Your task to perform on an android device: install app "Google Duo" Image 0: 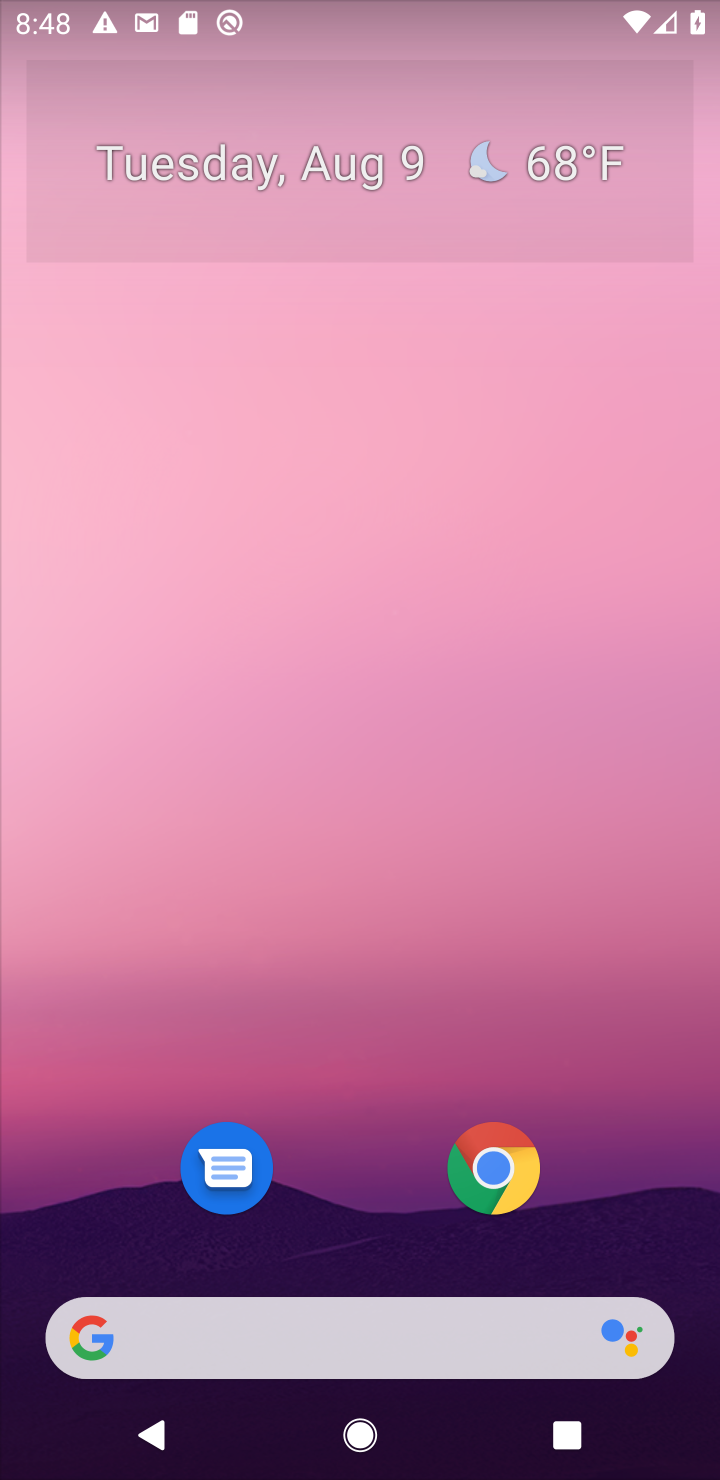
Step 0: drag from (479, 1336) to (169, 61)
Your task to perform on an android device: install app "Google Duo" Image 1: 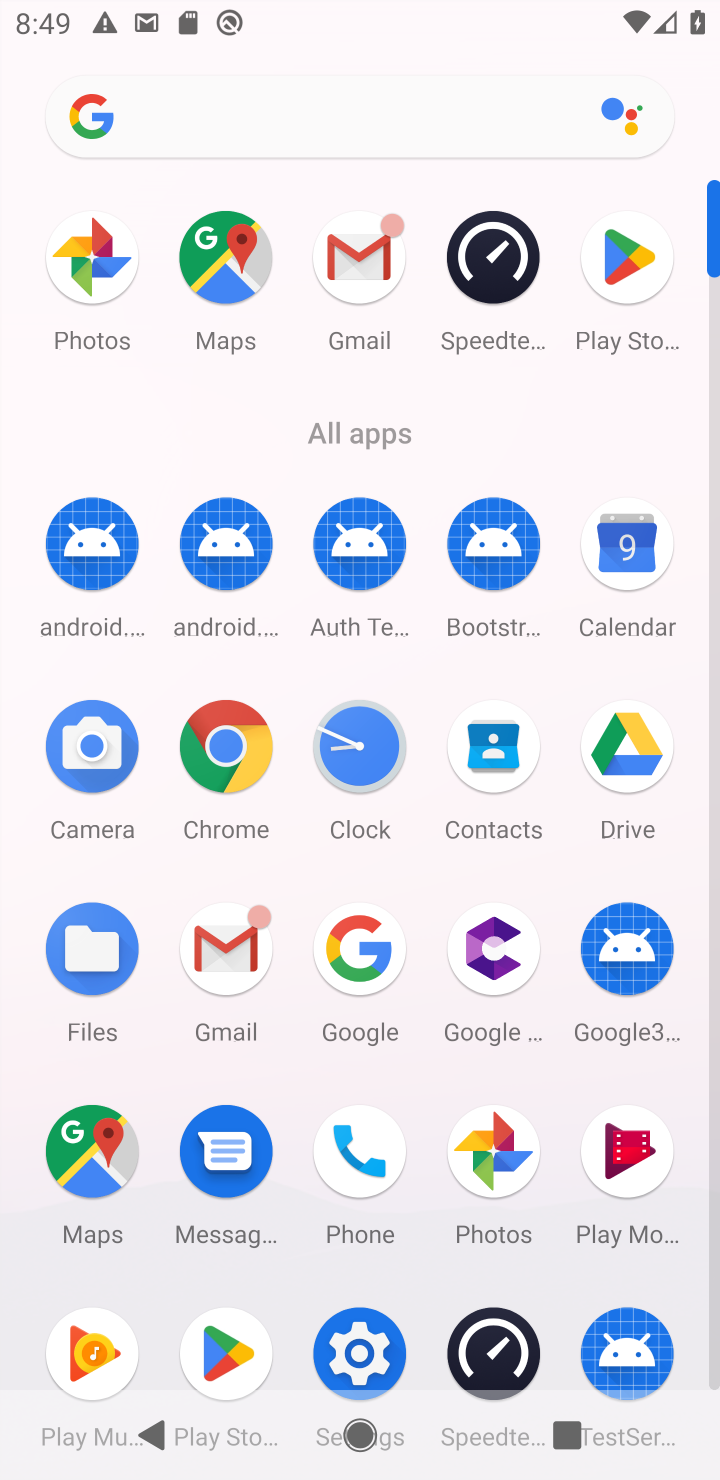
Step 1: click (641, 258)
Your task to perform on an android device: install app "Google Duo" Image 2: 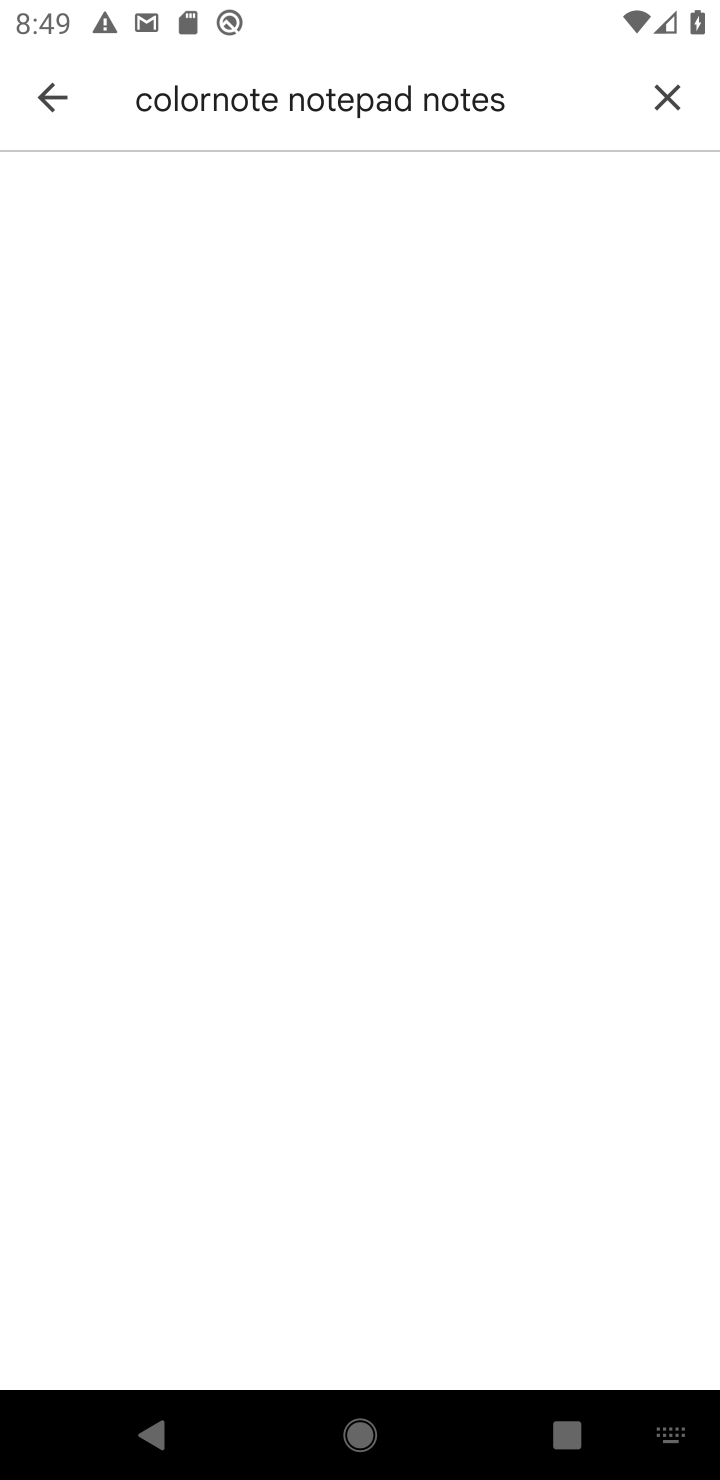
Step 2: click (663, 91)
Your task to perform on an android device: install app "Google Duo" Image 3: 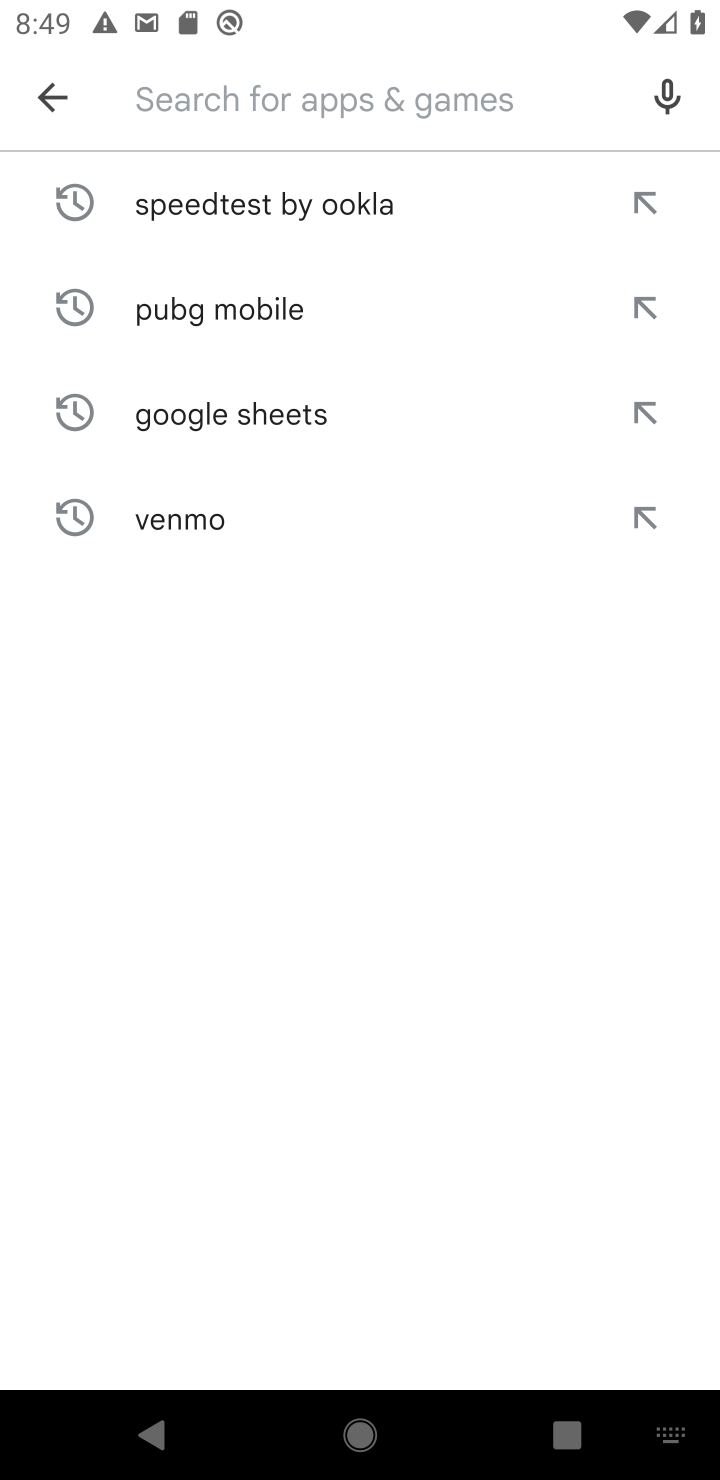
Step 3: type "google duo"
Your task to perform on an android device: install app "Google Duo" Image 4: 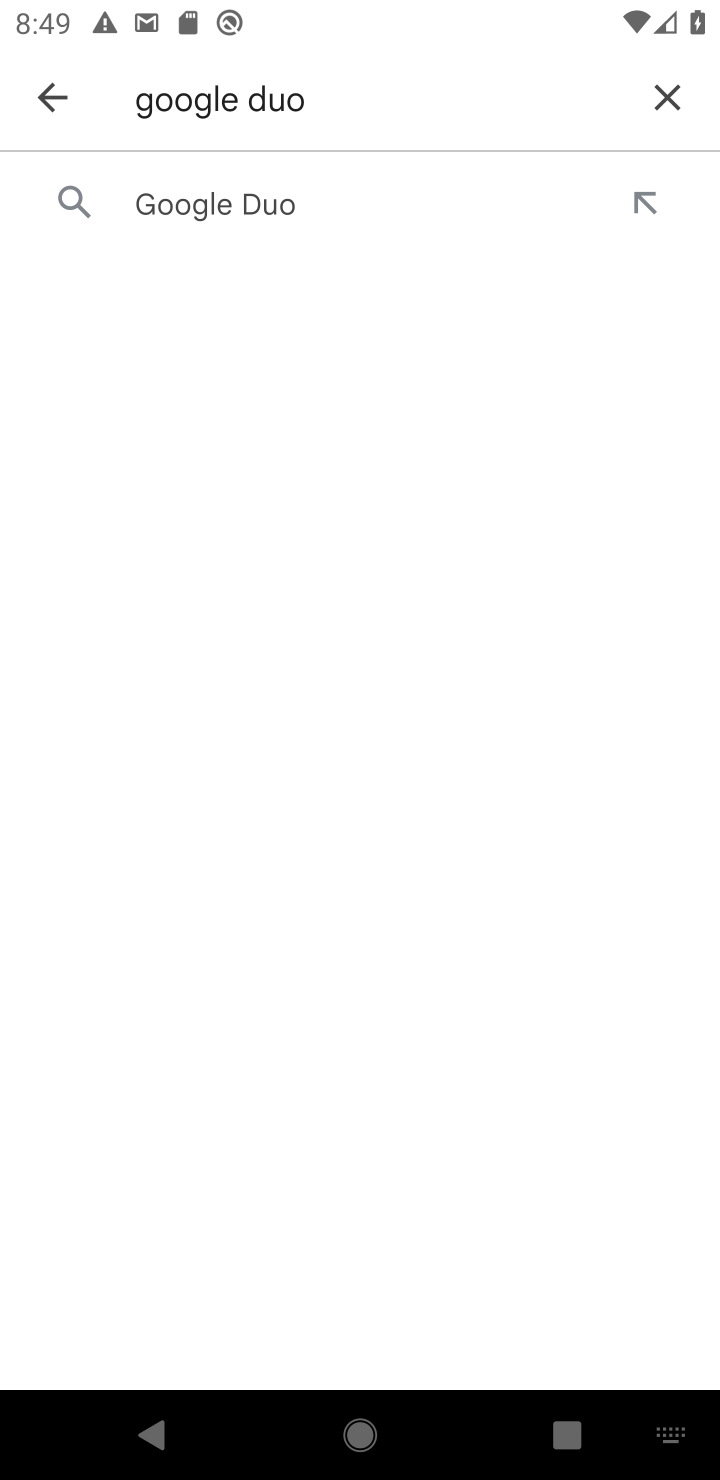
Step 4: click (343, 187)
Your task to perform on an android device: install app "Google Duo" Image 5: 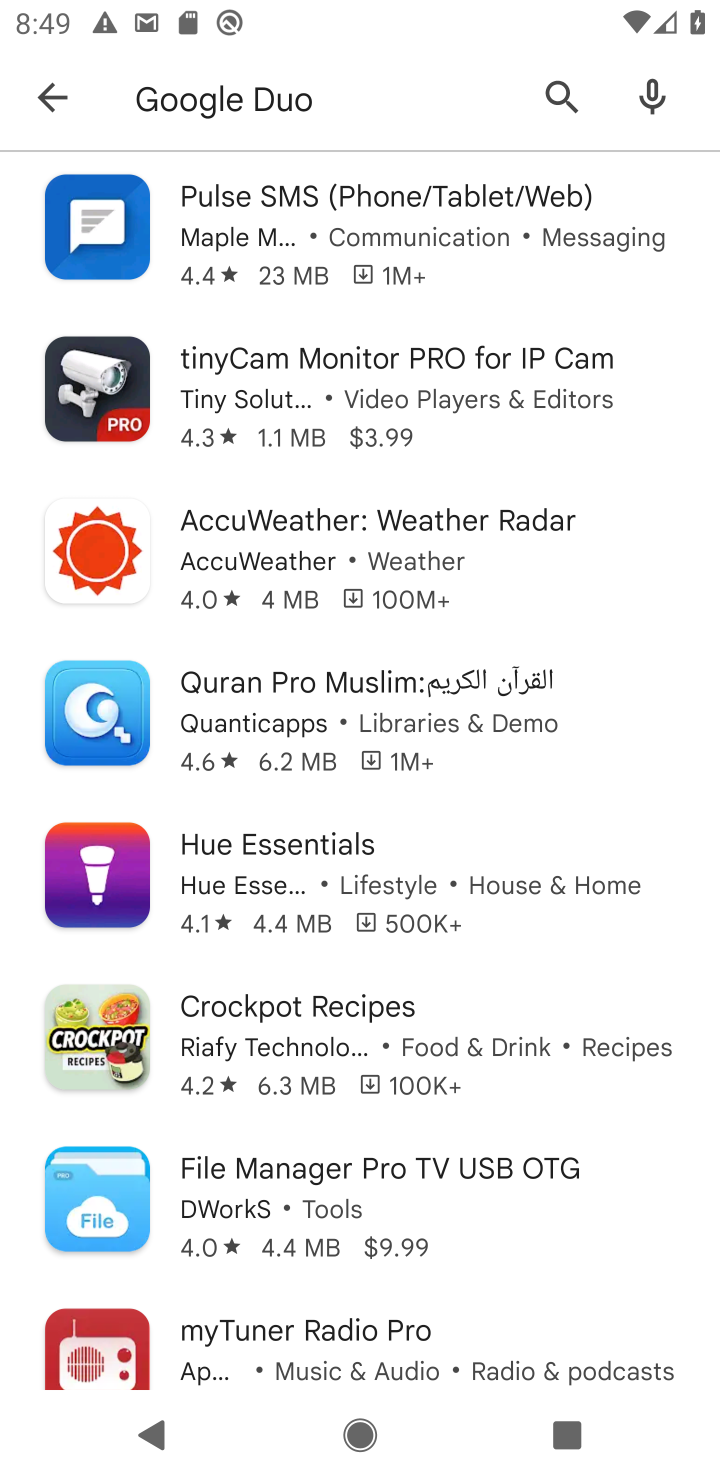
Step 5: task complete